Your task to perform on an android device: clear history in the chrome app Image 0: 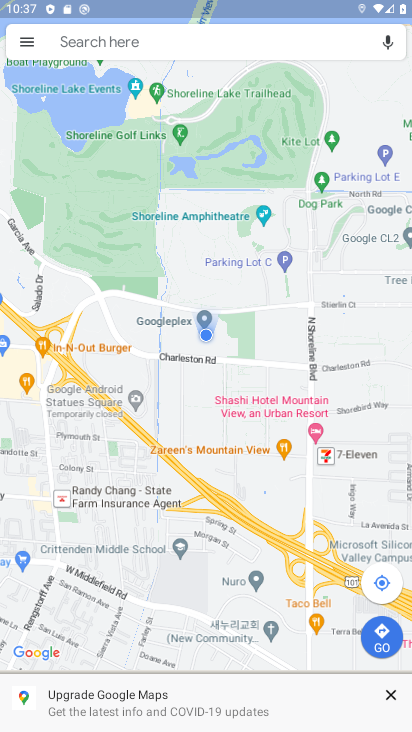
Step 0: press home button
Your task to perform on an android device: clear history in the chrome app Image 1: 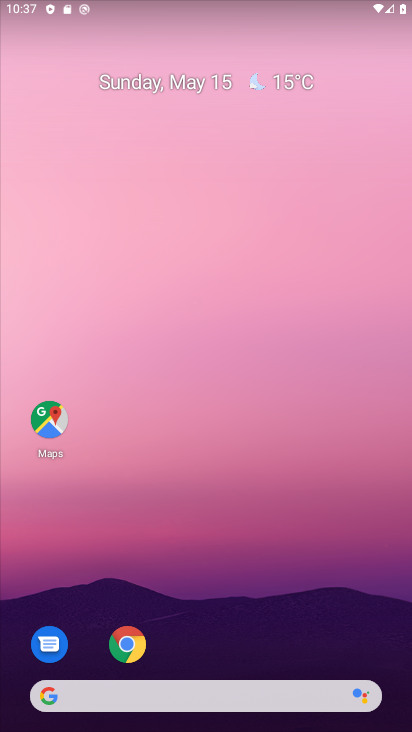
Step 1: click (124, 651)
Your task to perform on an android device: clear history in the chrome app Image 2: 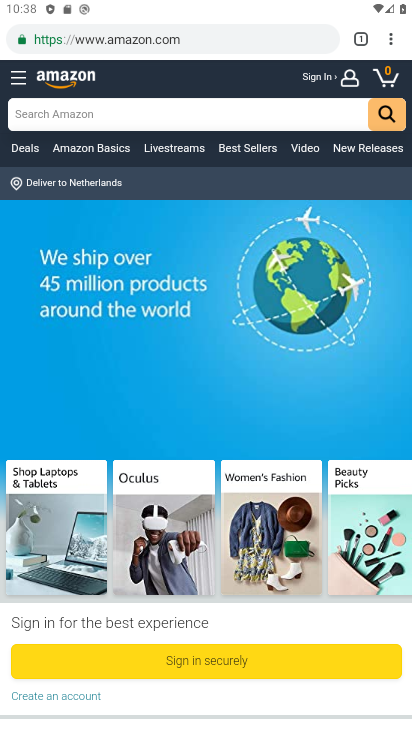
Step 2: click (389, 33)
Your task to perform on an android device: clear history in the chrome app Image 3: 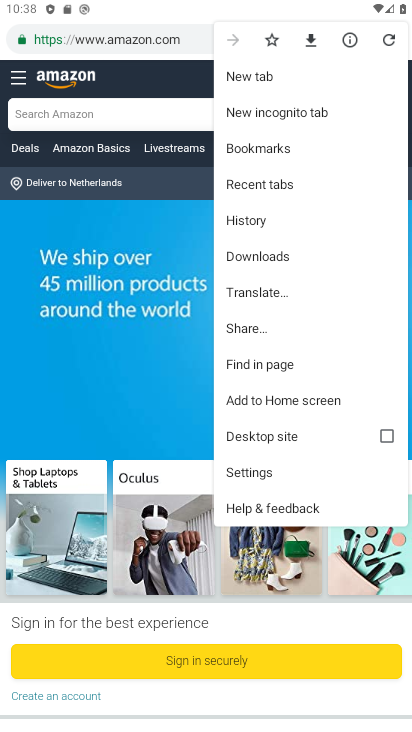
Step 3: click (293, 472)
Your task to perform on an android device: clear history in the chrome app Image 4: 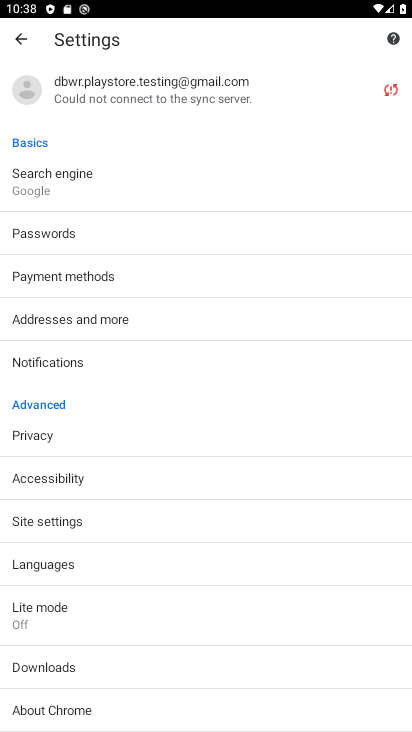
Step 4: click (5, 34)
Your task to perform on an android device: clear history in the chrome app Image 5: 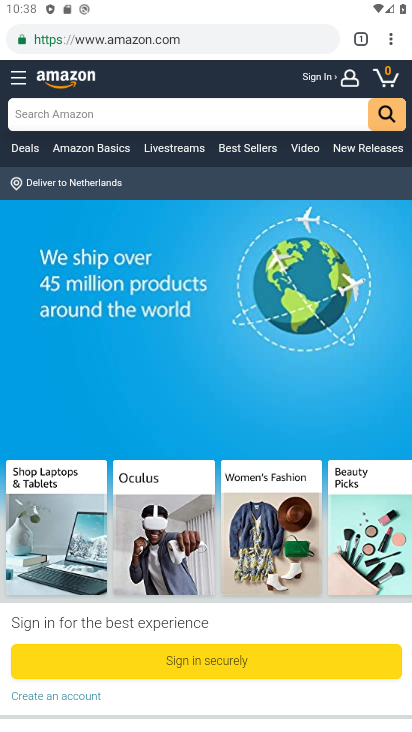
Step 5: click (390, 30)
Your task to perform on an android device: clear history in the chrome app Image 6: 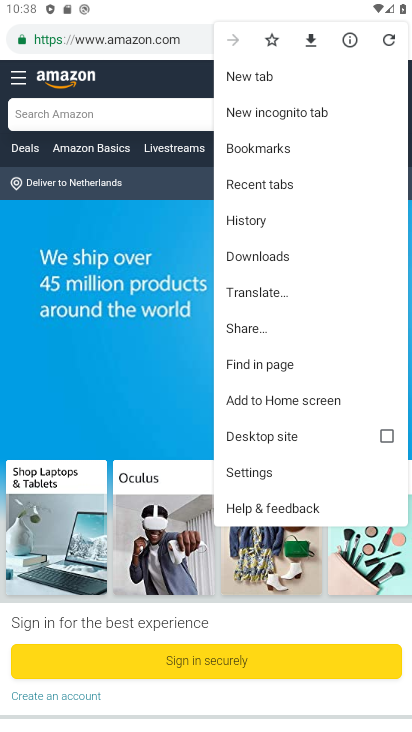
Step 6: click (288, 220)
Your task to perform on an android device: clear history in the chrome app Image 7: 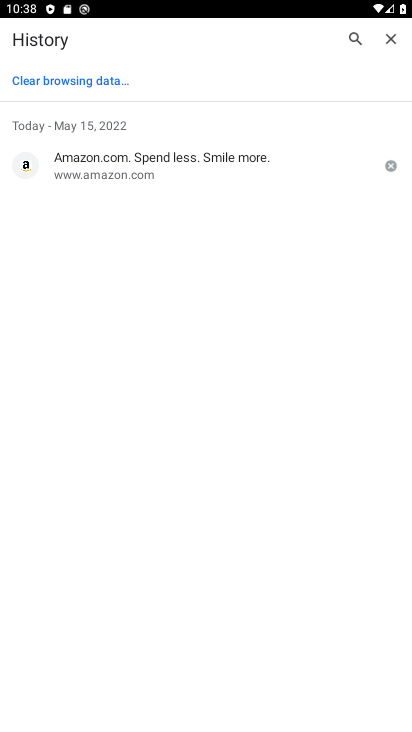
Step 7: click (53, 79)
Your task to perform on an android device: clear history in the chrome app Image 8: 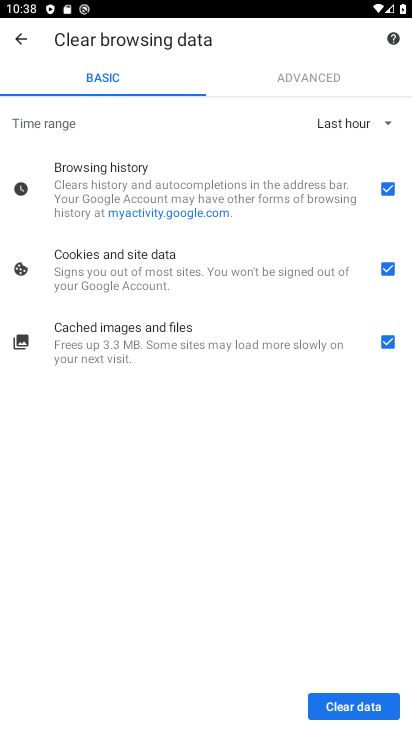
Step 8: click (362, 715)
Your task to perform on an android device: clear history in the chrome app Image 9: 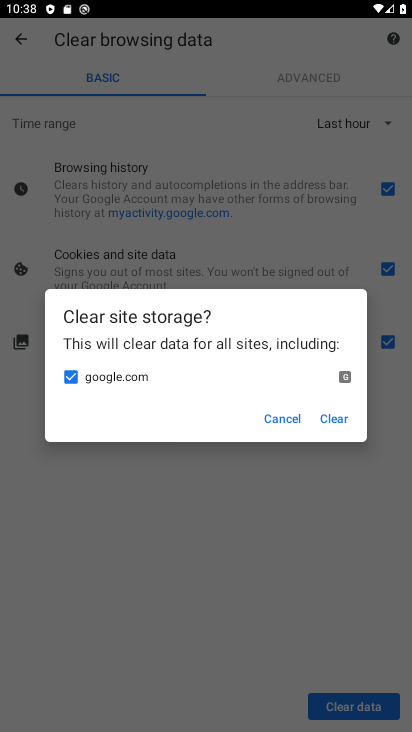
Step 9: click (330, 415)
Your task to perform on an android device: clear history in the chrome app Image 10: 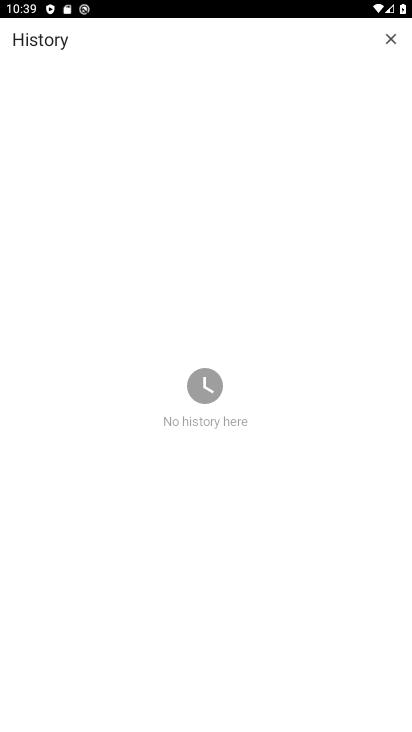
Step 10: task complete